Your task to perform on an android device: turn on bluetooth scan Image 0: 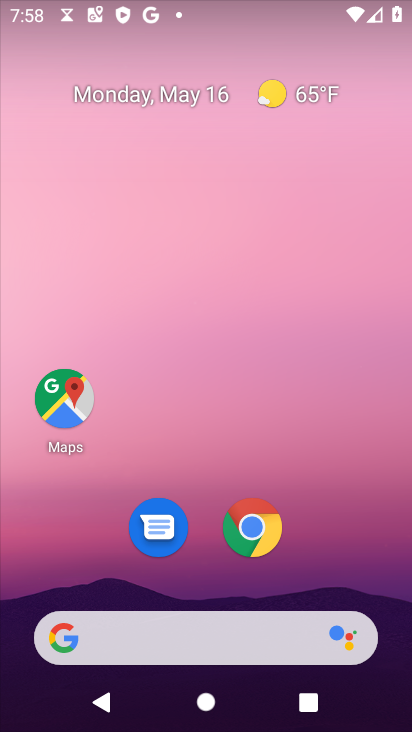
Step 0: drag from (315, 571) to (317, 217)
Your task to perform on an android device: turn on bluetooth scan Image 1: 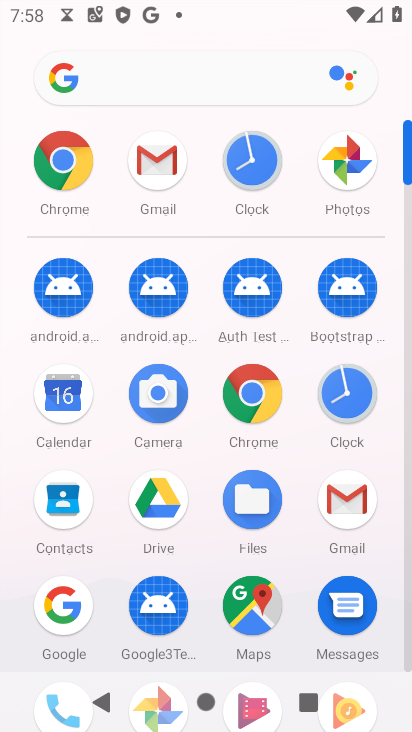
Step 1: drag from (289, 519) to (297, 156)
Your task to perform on an android device: turn on bluetooth scan Image 2: 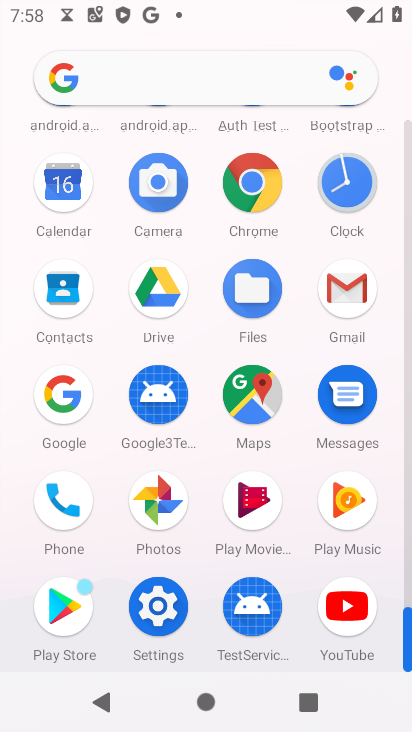
Step 2: click (158, 600)
Your task to perform on an android device: turn on bluetooth scan Image 3: 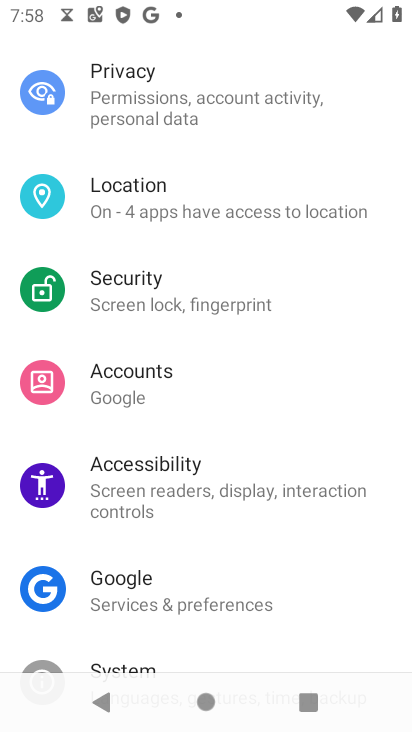
Step 3: drag from (190, 156) to (223, 466)
Your task to perform on an android device: turn on bluetooth scan Image 4: 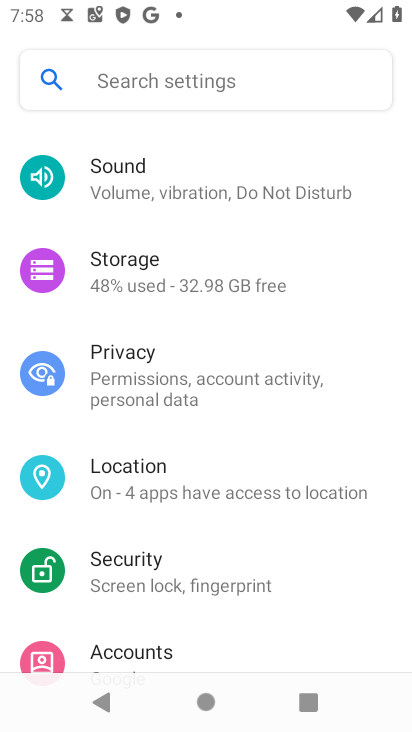
Step 4: click (194, 72)
Your task to perform on an android device: turn on bluetooth scan Image 5: 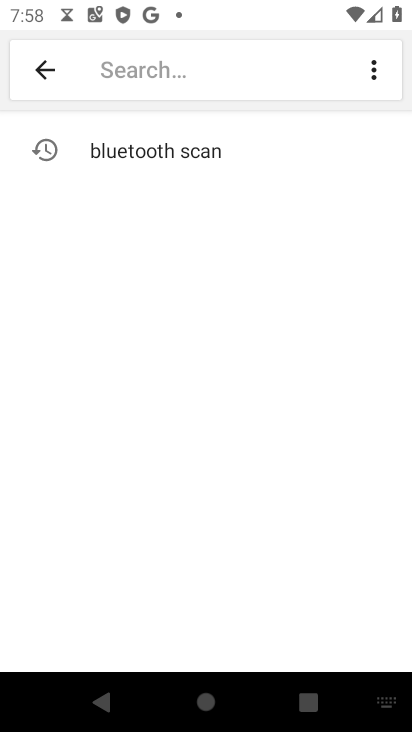
Step 5: click (162, 128)
Your task to perform on an android device: turn on bluetooth scan Image 6: 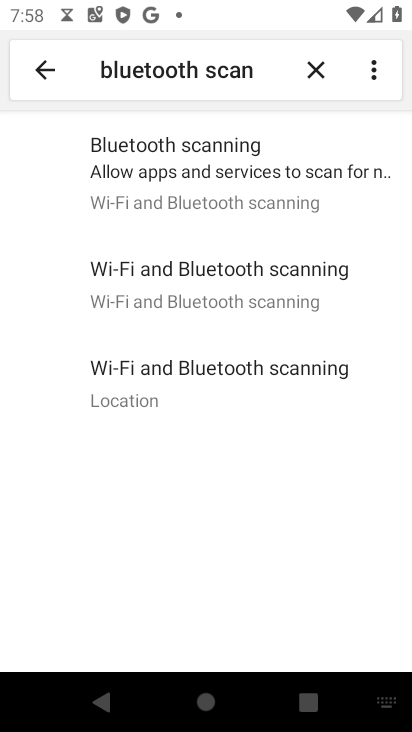
Step 6: click (224, 158)
Your task to perform on an android device: turn on bluetooth scan Image 7: 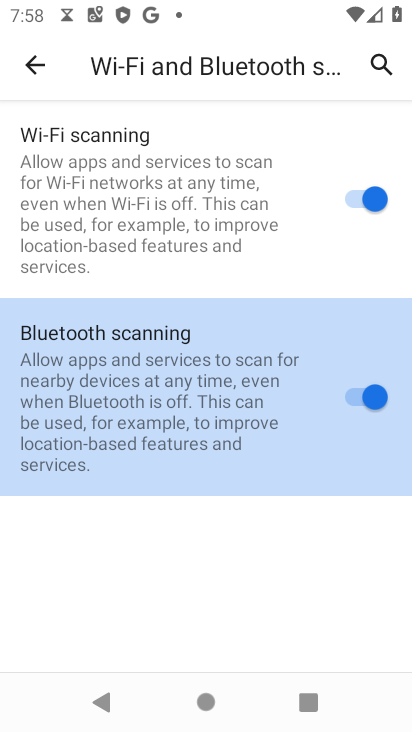
Step 7: task complete